Your task to perform on an android device: Open the calendar app, open the side menu, and click the "Day" option Image 0: 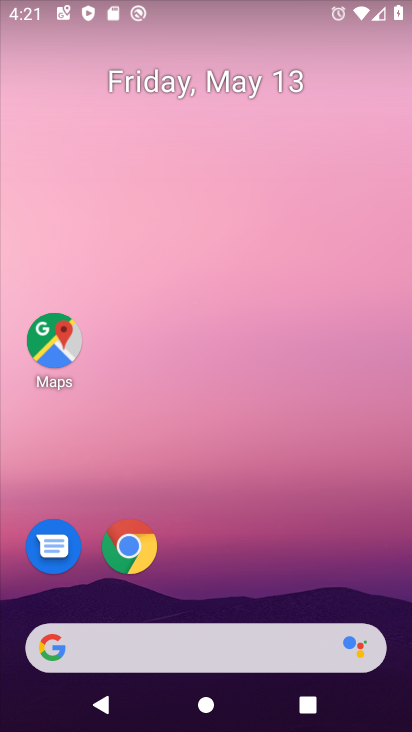
Step 0: drag from (240, 583) to (355, 68)
Your task to perform on an android device: Open the calendar app, open the side menu, and click the "Day" option Image 1: 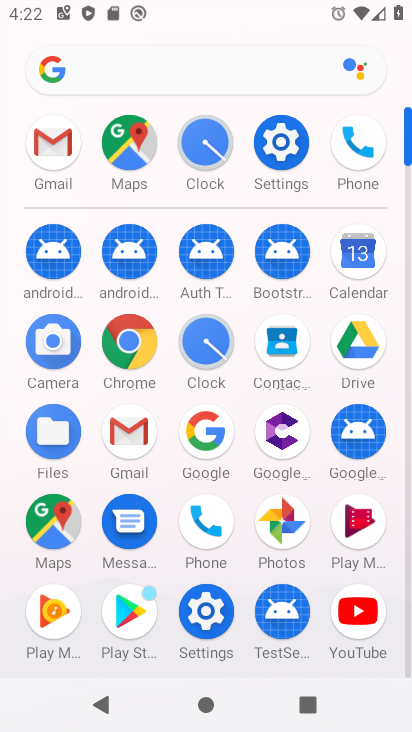
Step 1: click (366, 264)
Your task to perform on an android device: Open the calendar app, open the side menu, and click the "Day" option Image 2: 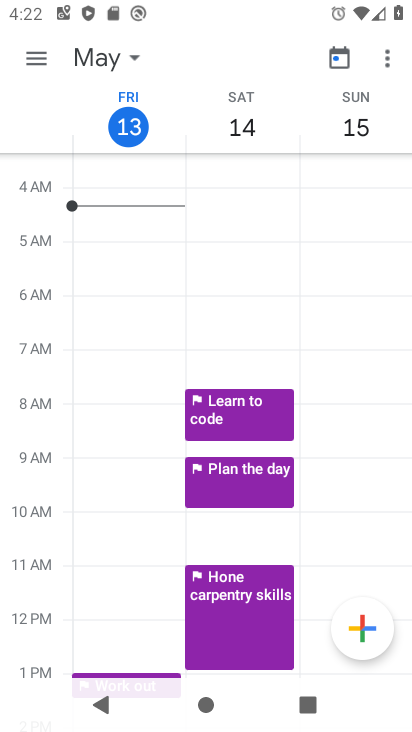
Step 2: click (41, 46)
Your task to perform on an android device: Open the calendar app, open the side menu, and click the "Day" option Image 3: 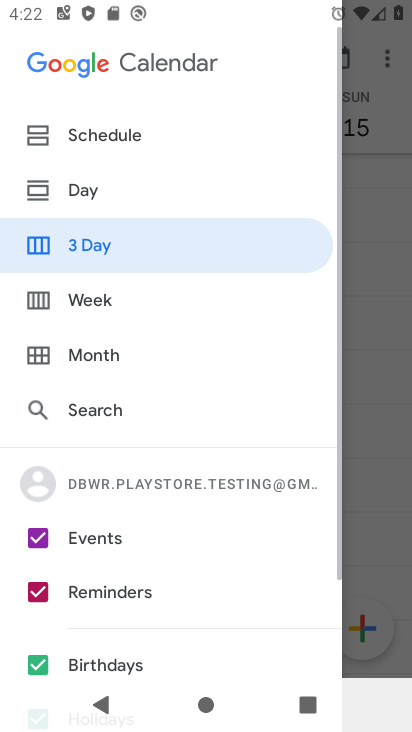
Step 3: click (114, 190)
Your task to perform on an android device: Open the calendar app, open the side menu, and click the "Day" option Image 4: 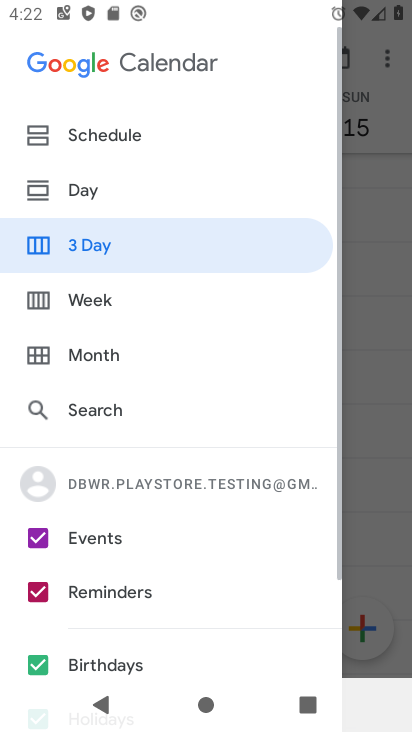
Step 4: click (114, 190)
Your task to perform on an android device: Open the calendar app, open the side menu, and click the "Day" option Image 5: 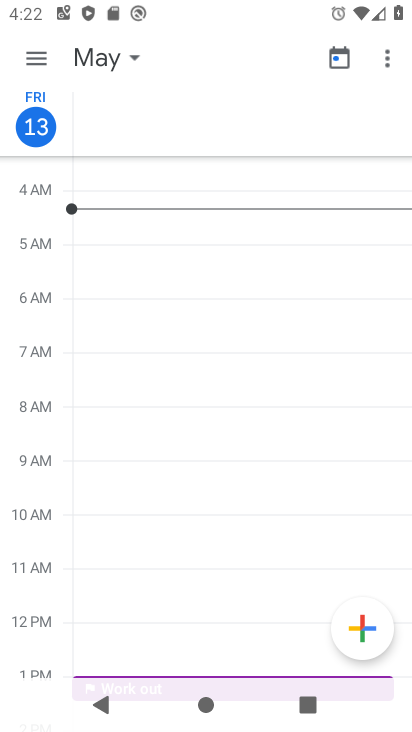
Step 5: task complete